Your task to perform on an android device: Set the phone to "Do not disturb". Image 0: 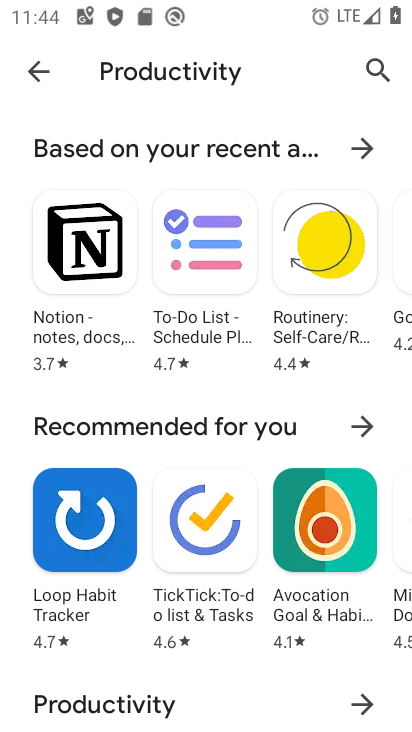
Step 0: press home button
Your task to perform on an android device: Set the phone to "Do not disturb". Image 1: 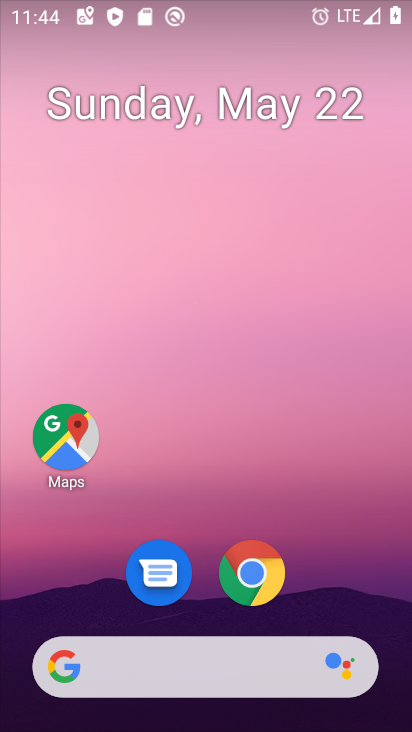
Step 1: drag from (324, 597) to (329, 125)
Your task to perform on an android device: Set the phone to "Do not disturb". Image 2: 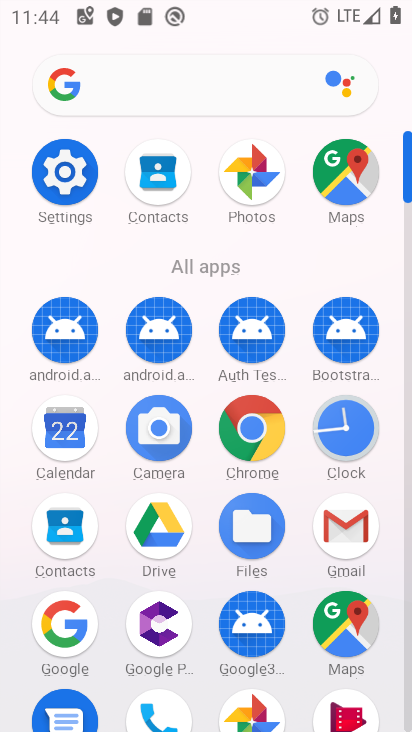
Step 2: click (79, 176)
Your task to perform on an android device: Set the phone to "Do not disturb". Image 3: 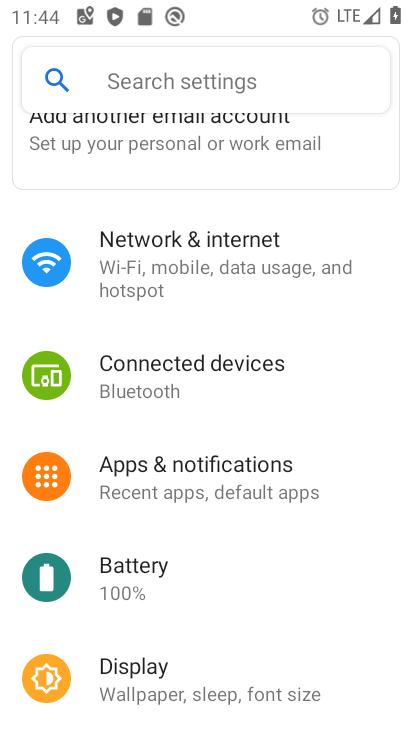
Step 3: drag from (177, 597) to (207, 289)
Your task to perform on an android device: Set the phone to "Do not disturb". Image 4: 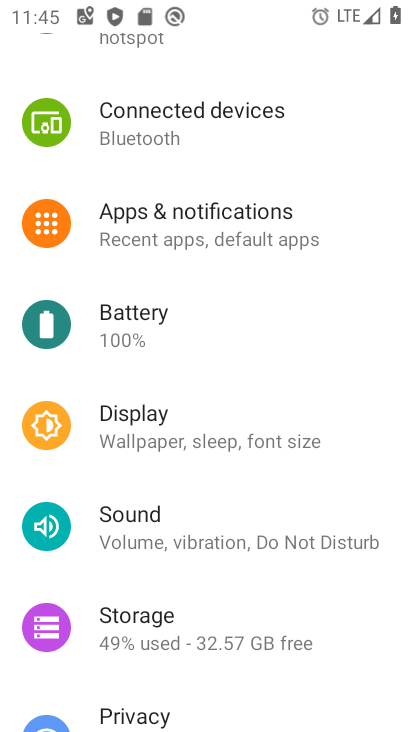
Step 4: click (288, 542)
Your task to perform on an android device: Set the phone to "Do not disturb". Image 5: 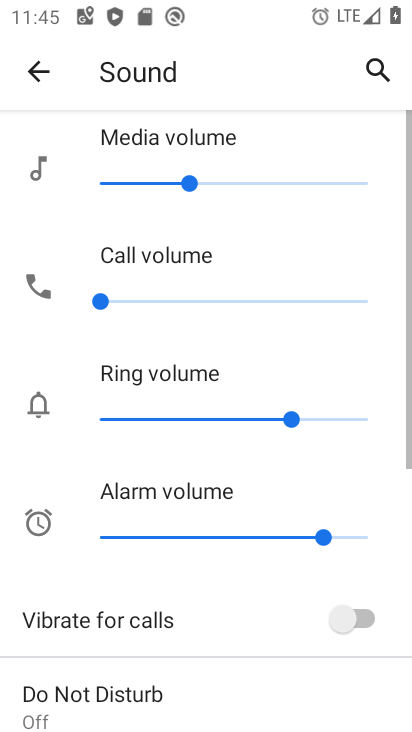
Step 5: drag from (179, 676) to (170, 221)
Your task to perform on an android device: Set the phone to "Do not disturb". Image 6: 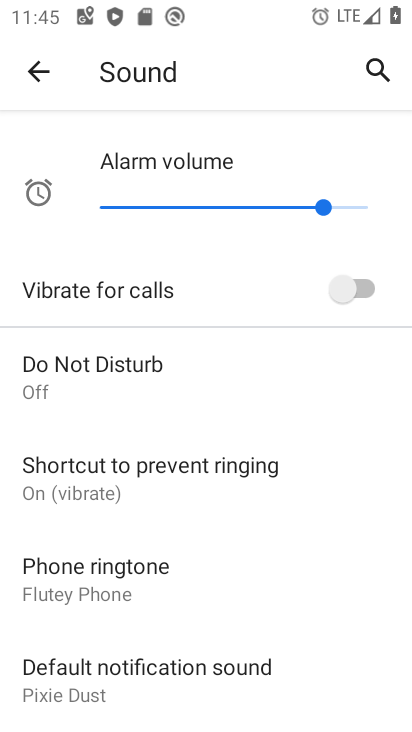
Step 6: drag from (176, 656) to (233, 143)
Your task to perform on an android device: Set the phone to "Do not disturb". Image 7: 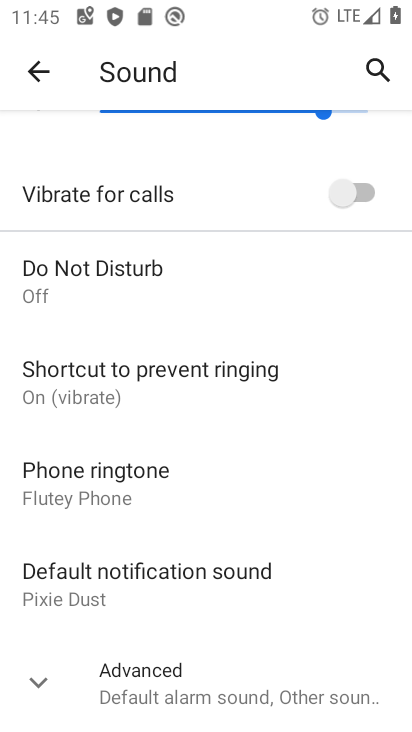
Step 7: click (136, 269)
Your task to perform on an android device: Set the phone to "Do not disturb". Image 8: 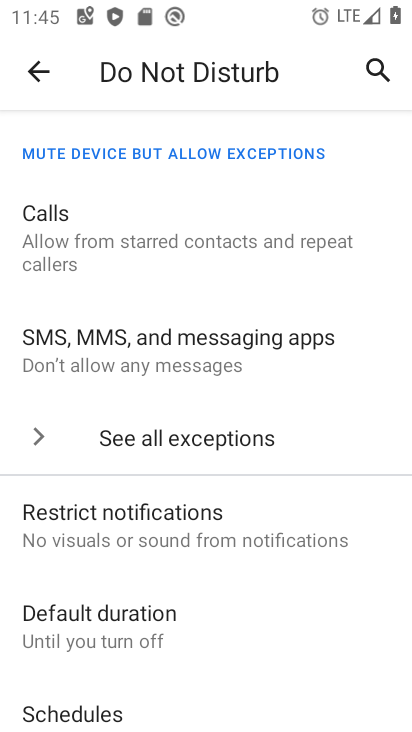
Step 8: drag from (221, 680) to (270, 151)
Your task to perform on an android device: Set the phone to "Do not disturb". Image 9: 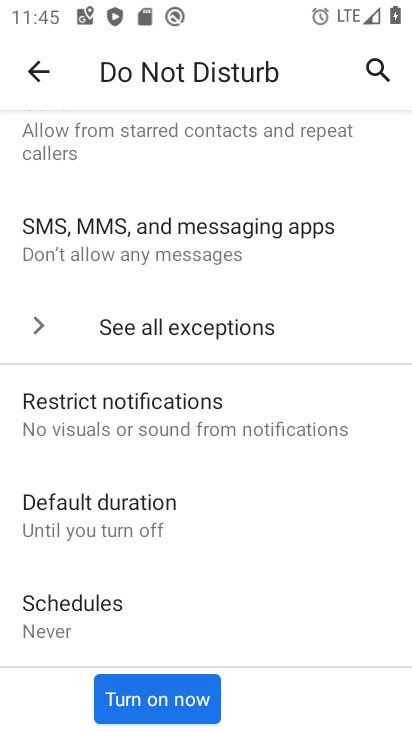
Step 9: click (143, 698)
Your task to perform on an android device: Set the phone to "Do not disturb". Image 10: 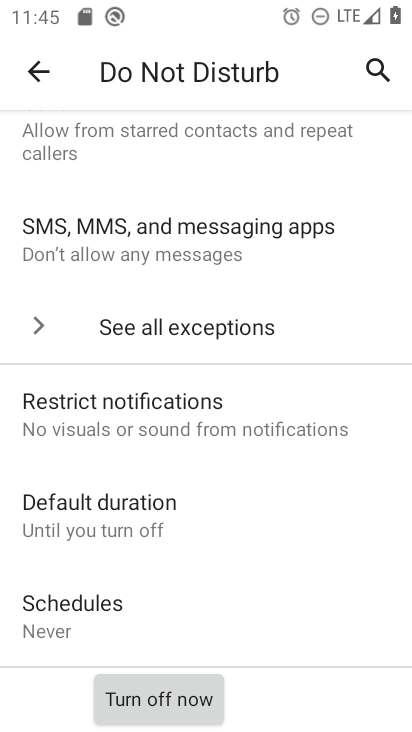
Step 10: task complete